Your task to perform on an android device: Search for razer blade on ebay, select the first entry, and add it to the cart. Image 0: 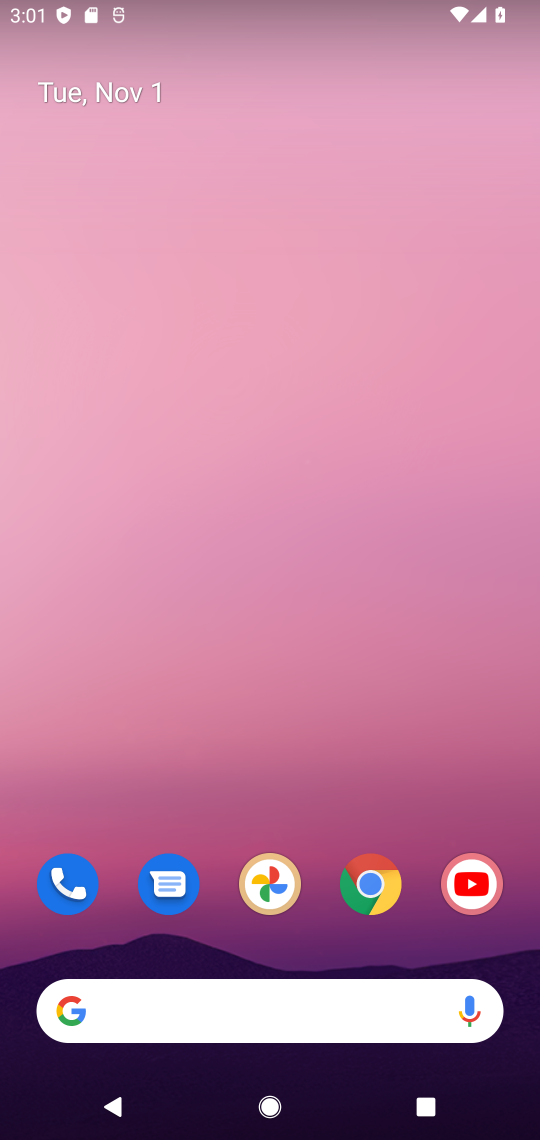
Step 0: click (367, 884)
Your task to perform on an android device: Search for razer blade on ebay, select the first entry, and add it to the cart. Image 1: 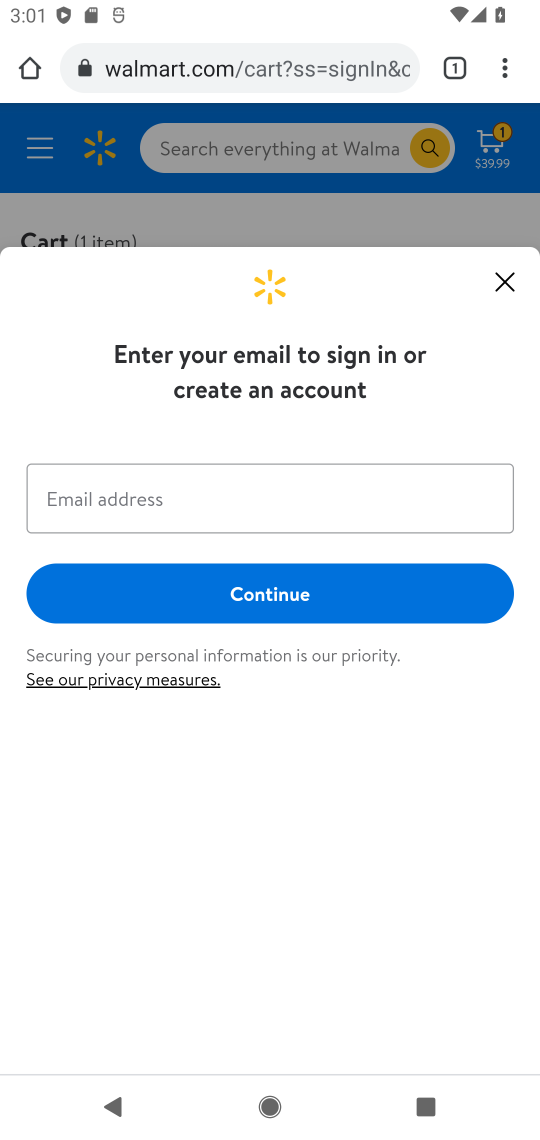
Step 1: click (355, 43)
Your task to perform on an android device: Search for razer blade on ebay, select the first entry, and add it to the cart. Image 2: 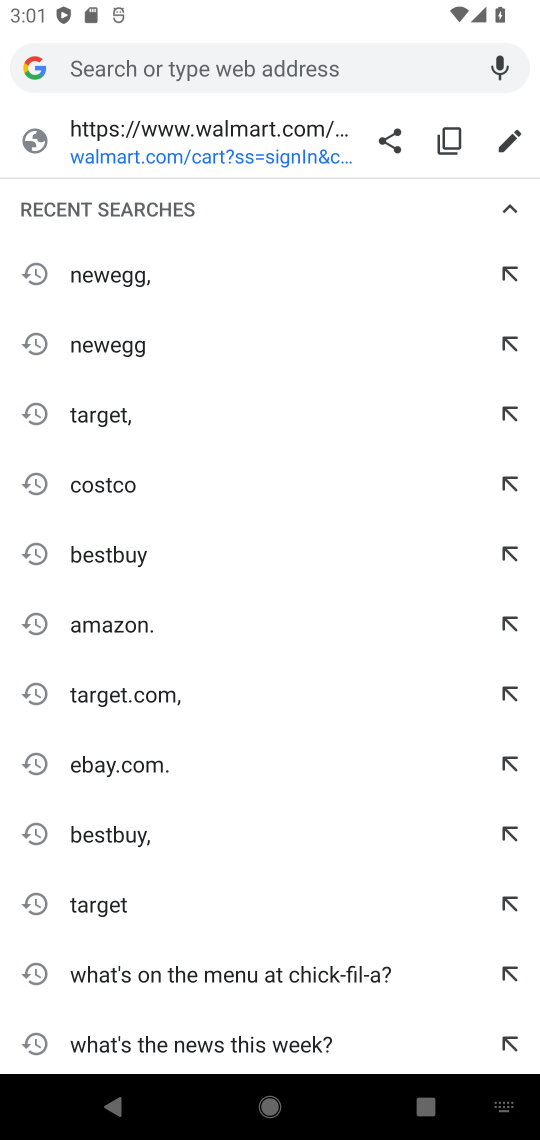
Step 2: type "ebay"
Your task to perform on an android device: Search for razer blade on ebay, select the first entry, and add it to the cart. Image 3: 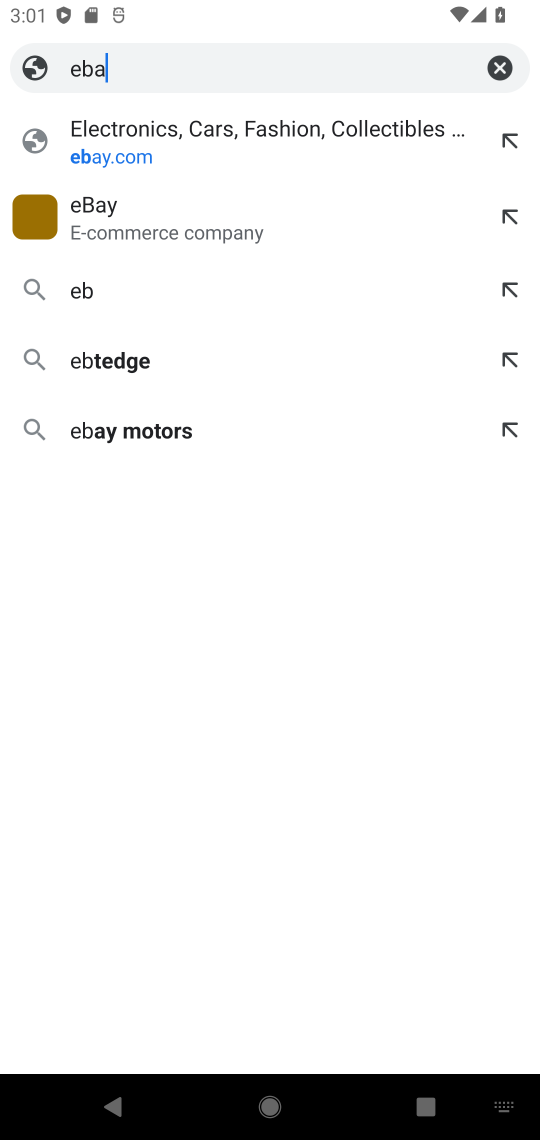
Step 3: press enter
Your task to perform on an android device: Search for razer blade on ebay, select the first entry, and add it to the cart. Image 4: 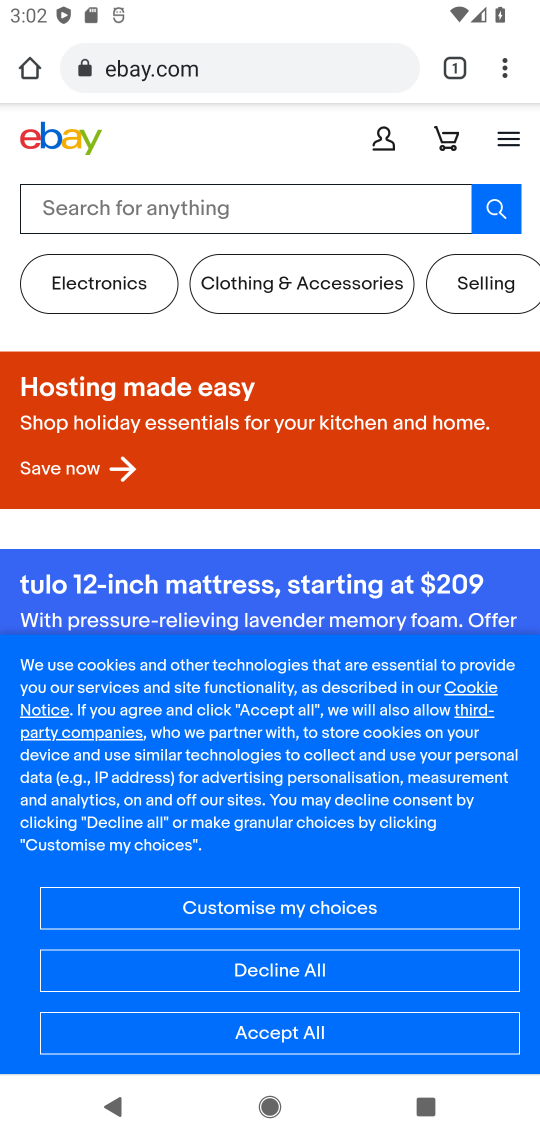
Step 4: click (234, 200)
Your task to perform on an android device: Search for razer blade on ebay, select the first entry, and add it to the cart. Image 5: 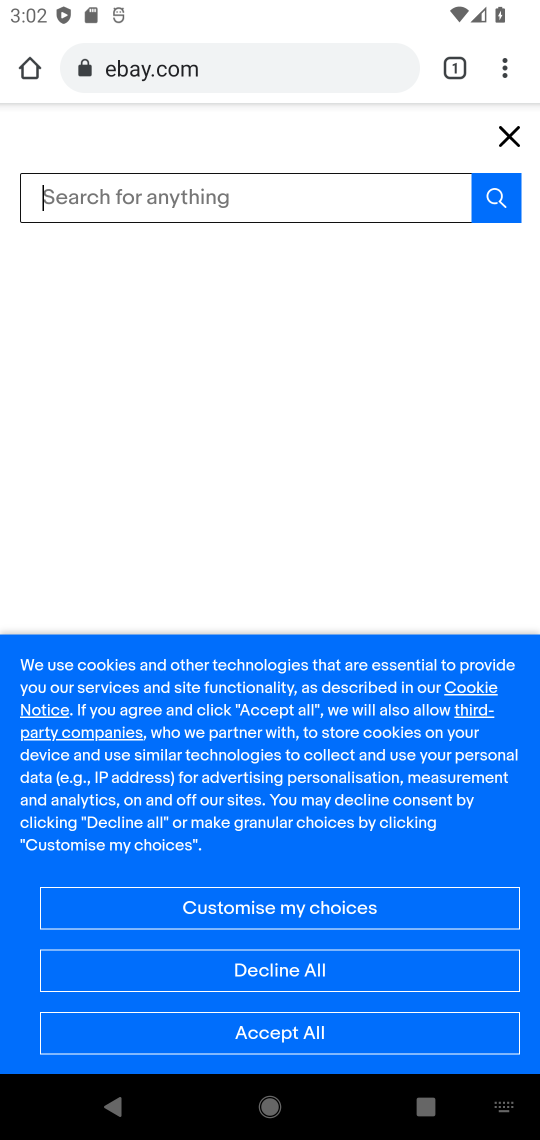
Step 5: type " razer blade"
Your task to perform on an android device: Search for razer blade on ebay, select the first entry, and add it to the cart. Image 6: 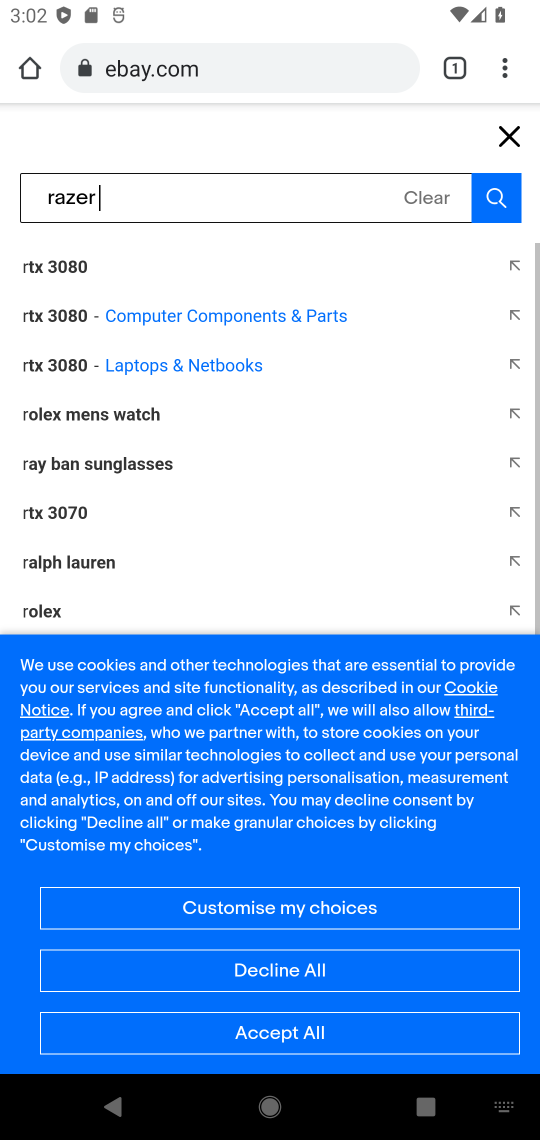
Step 6: press enter
Your task to perform on an android device: Search for razer blade on ebay, select the first entry, and add it to the cart. Image 7: 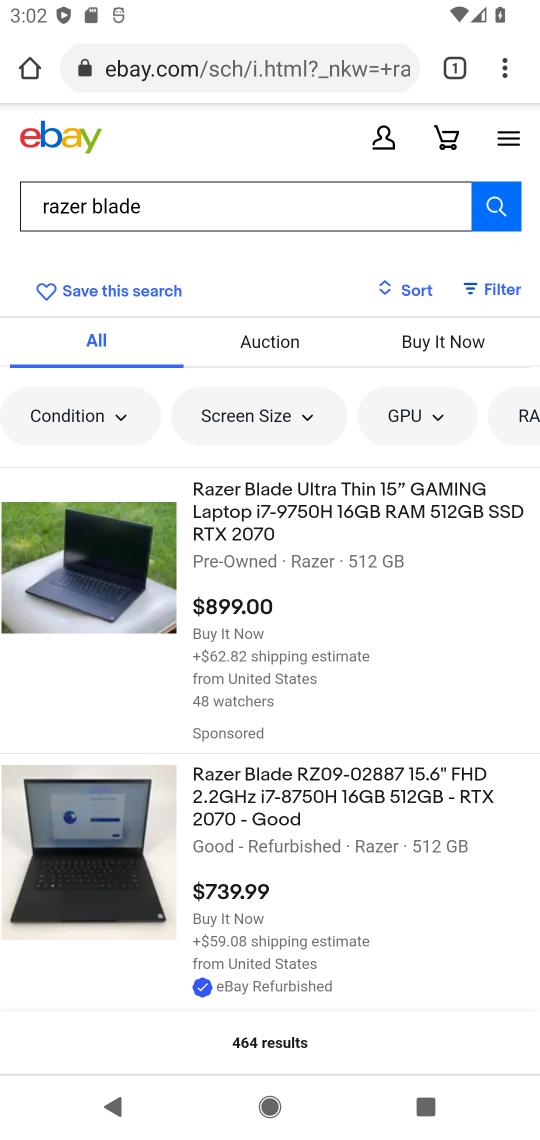
Step 7: click (213, 204)
Your task to perform on an android device: Search for razer blade on ebay, select the first entry, and add it to the cart. Image 8: 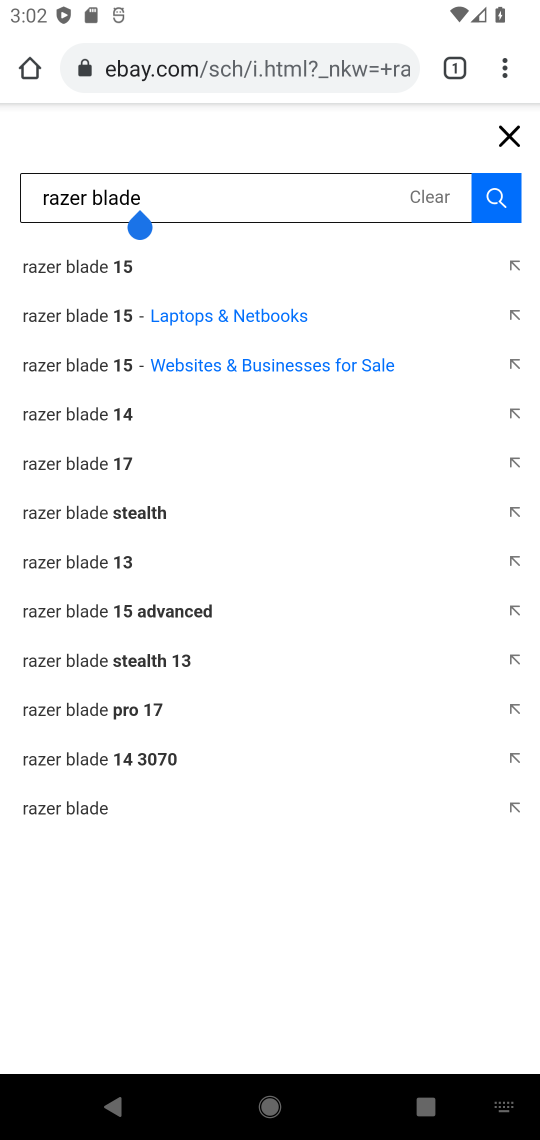
Step 8: click (89, 806)
Your task to perform on an android device: Search for razer blade on ebay, select the first entry, and add it to the cart. Image 9: 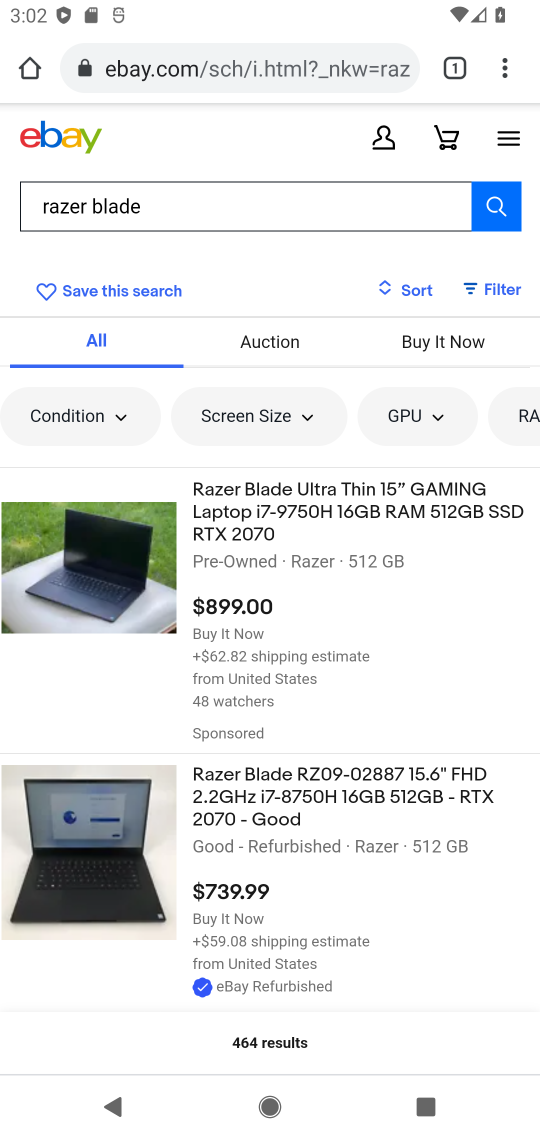
Step 9: click (130, 591)
Your task to perform on an android device: Search for razer blade on ebay, select the first entry, and add it to the cart. Image 10: 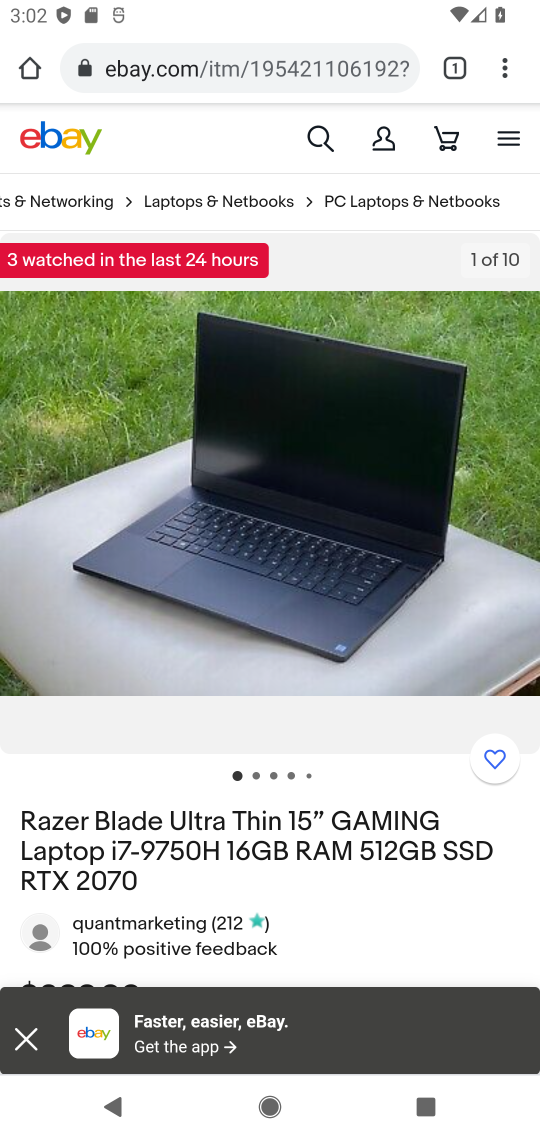
Step 10: drag from (483, 946) to (402, 433)
Your task to perform on an android device: Search for razer blade on ebay, select the first entry, and add it to the cart. Image 11: 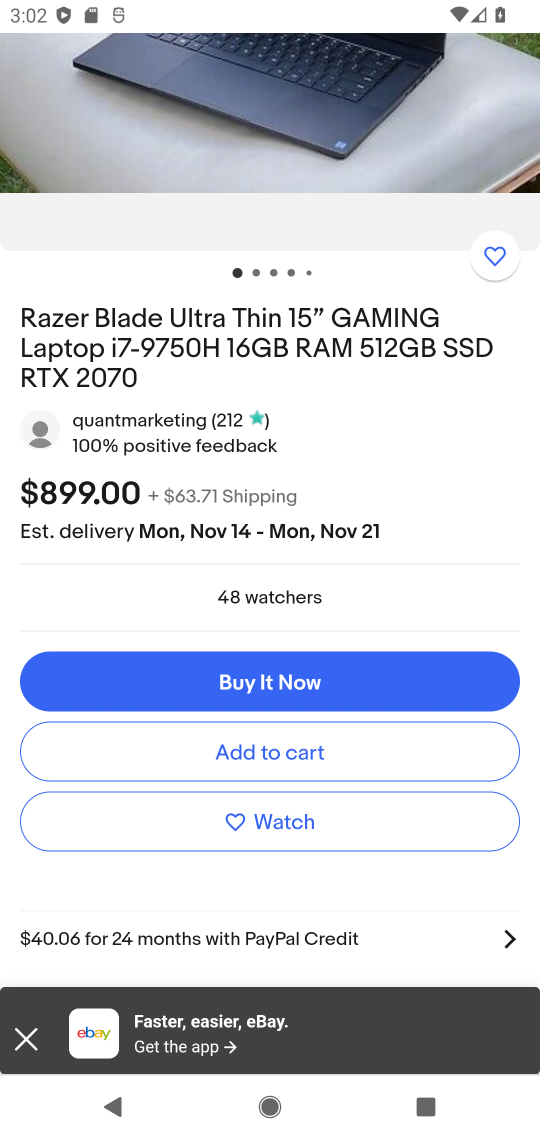
Step 11: click (347, 749)
Your task to perform on an android device: Search for razer blade on ebay, select the first entry, and add it to the cart. Image 12: 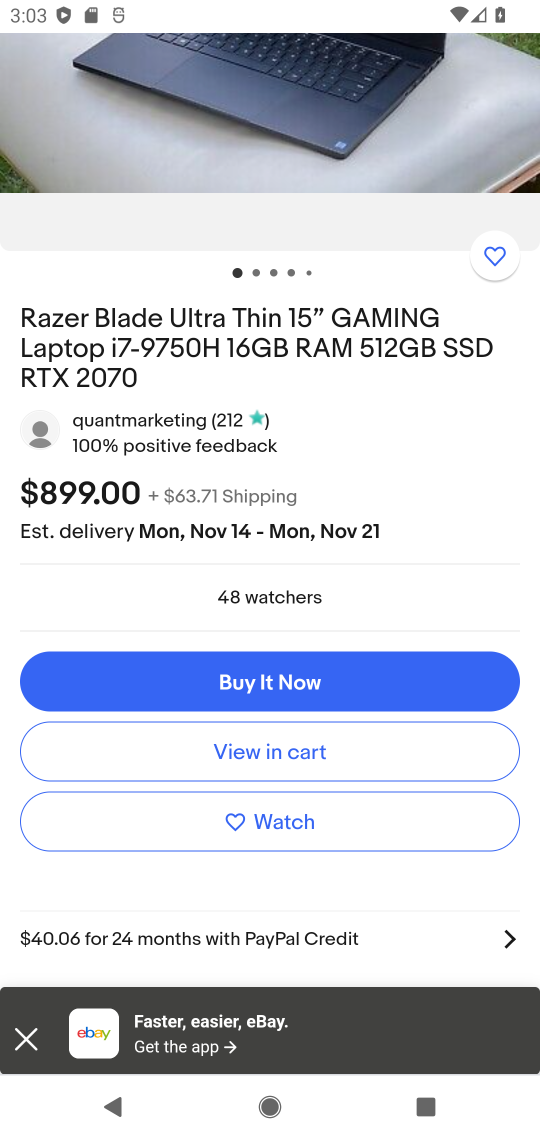
Step 12: task complete